Your task to perform on an android device: Go to settings Image 0: 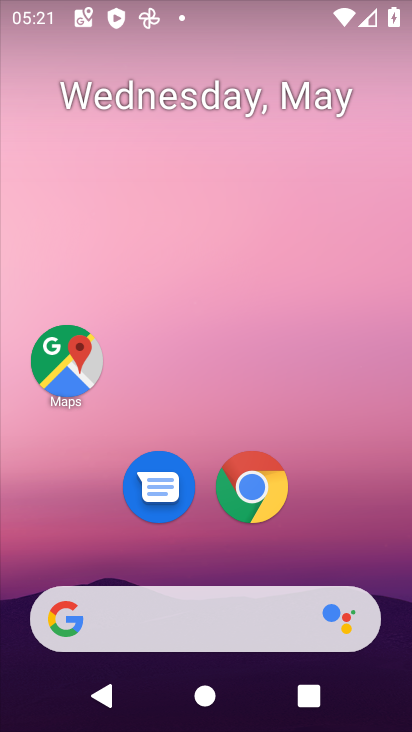
Step 0: drag from (356, 537) to (274, 4)
Your task to perform on an android device: Go to settings Image 1: 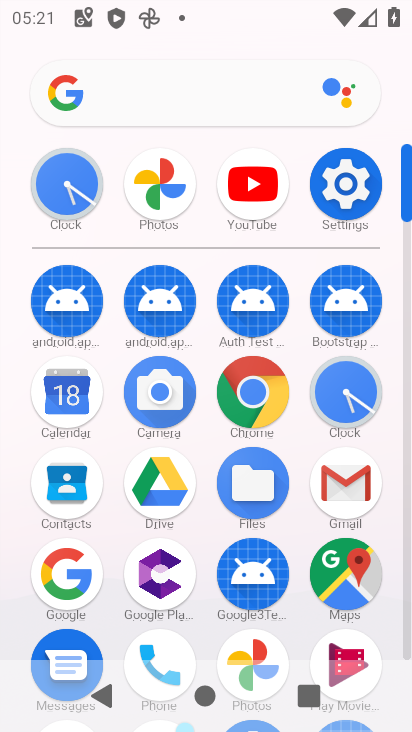
Step 1: click (326, 229)
Your task to perform on an android device: Go to settings Image 2: 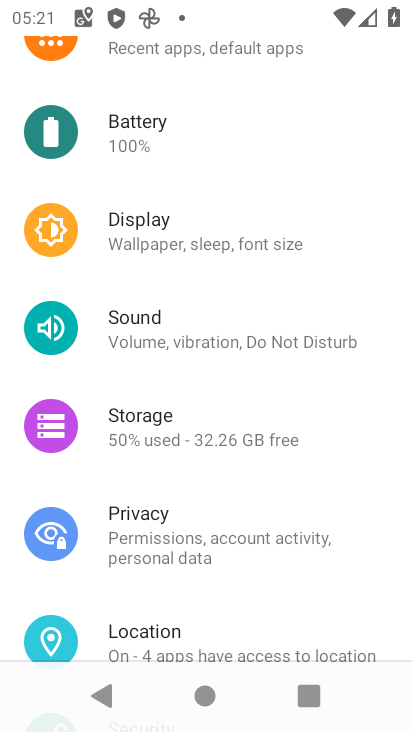
Step 2: task complete